Your task to perform on an android device: turn on translation in the chrome app Image 0: 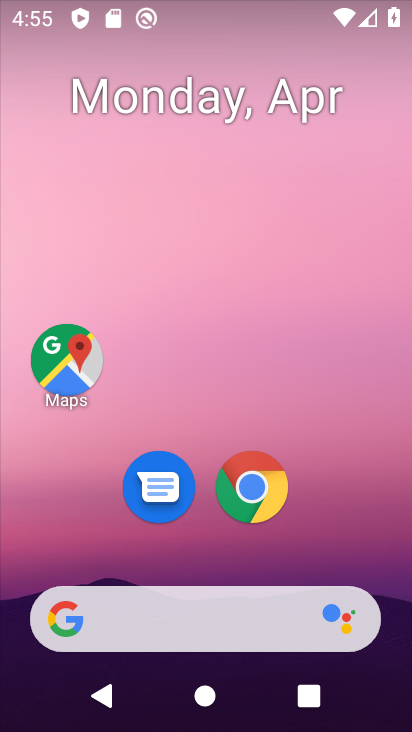
Step 0: click (269, 496)
Your task to perform on an android device: turn on translation in the chrome app Image 1: 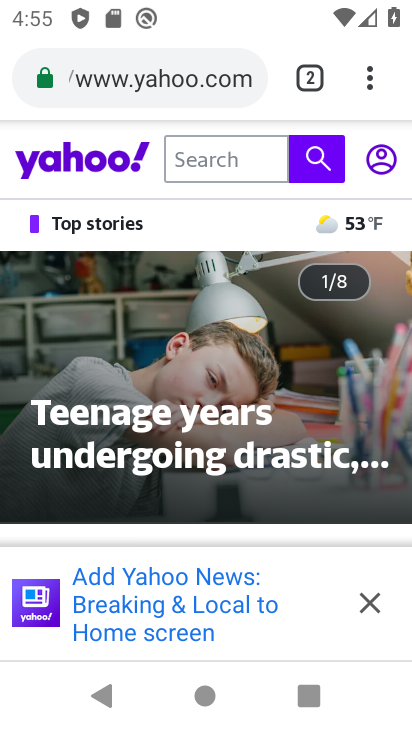
Step 1: drag from (376, 103) to (147, 553)
Your task to perform on an android device: turn on translation in the chrome app Image 2: 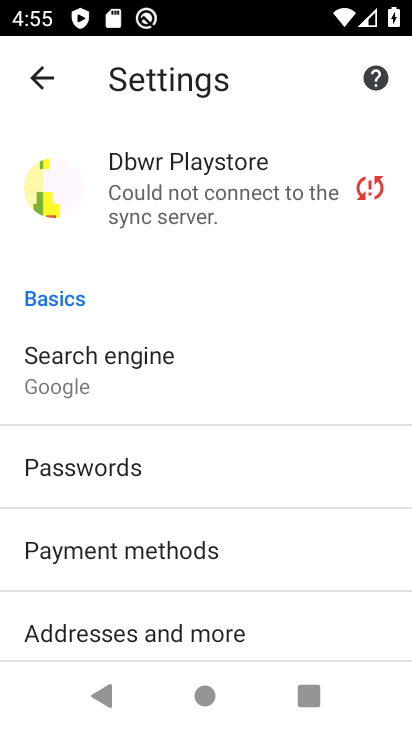
Step 2: drag from (197, 591) to (210, 271)
Your task to perform on an android device: turn on translation in the chrome app Image 3: 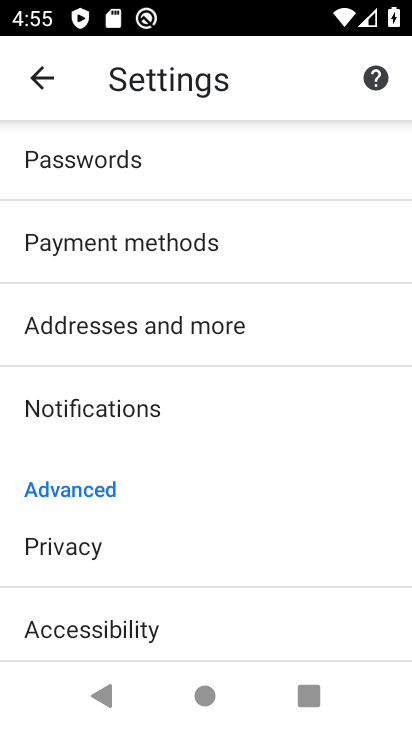
Step 3: drag from (290, 542) to (249, 141)
Your task to perform on an android device: turn on translation in the chrome app Image 4: 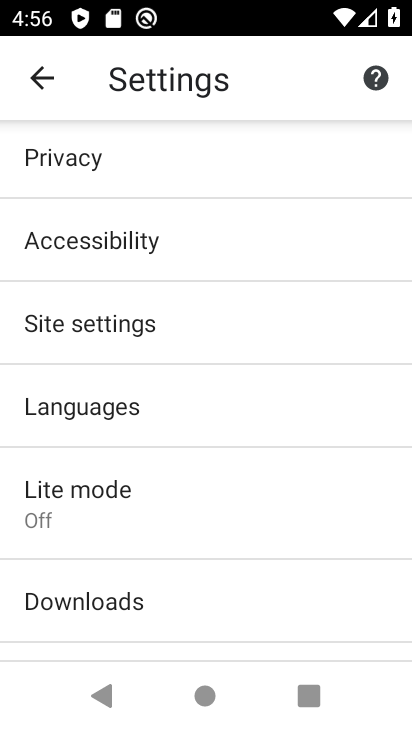
Step 4: click (297, 395)
Your task to perform on an android device: turn on translation in the chrome app Image 5: 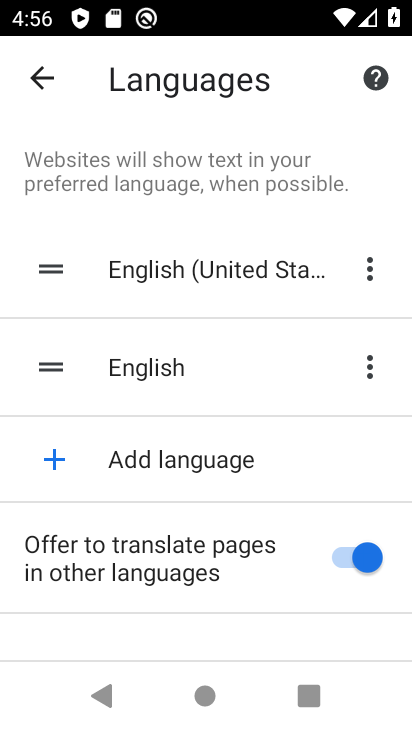
Step 5: task complete